Your task to perform on an android device: Open internet settings Image 0: 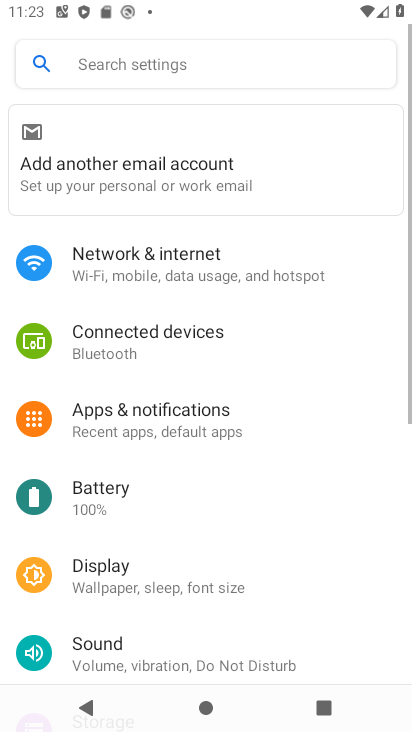
Step 0: press home button
Your task to perform on an android device: Open internet settings Image 1: 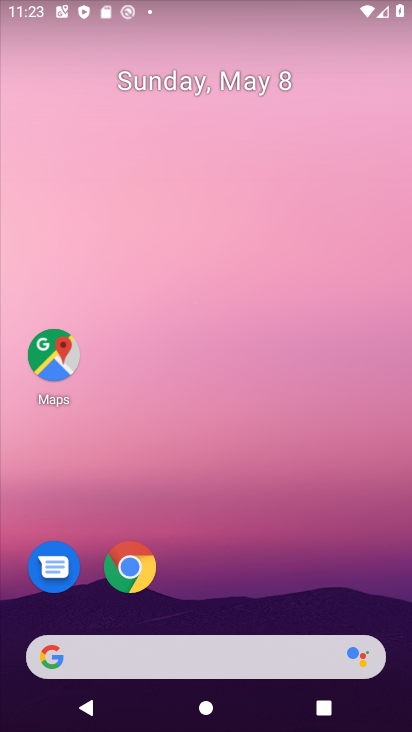
Step 1: drag from (217, 590) to (247, 55)
Your task to perform on an android device: Open internet settings Image 2: 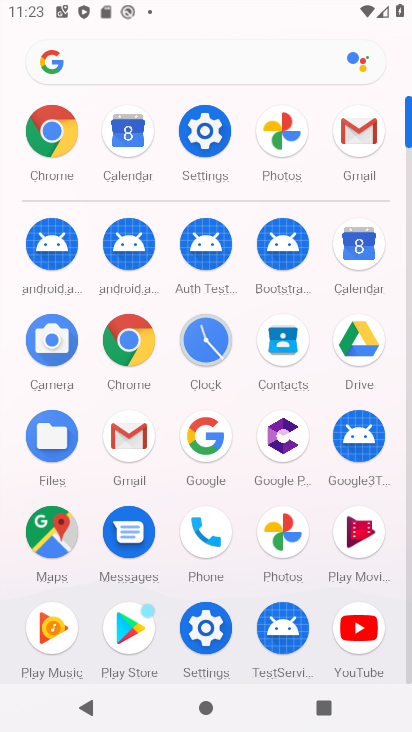
Step 2: click (201, 125)
Your task to perform on an android device: Open internet settings Image 3: 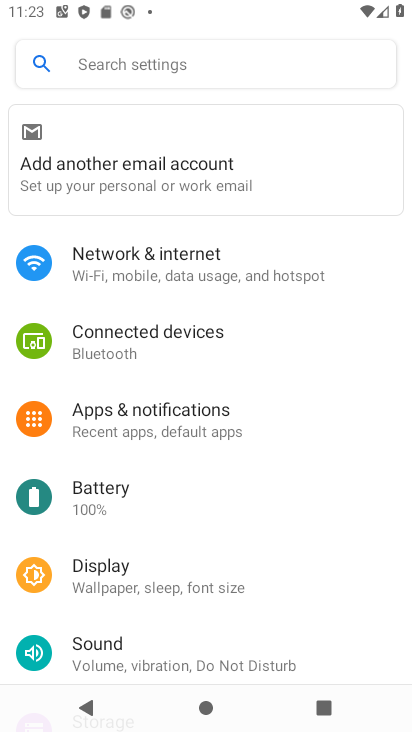
Step 3: click (237, 256)
Your task to perform on an android device: Open internet settings Image 4: 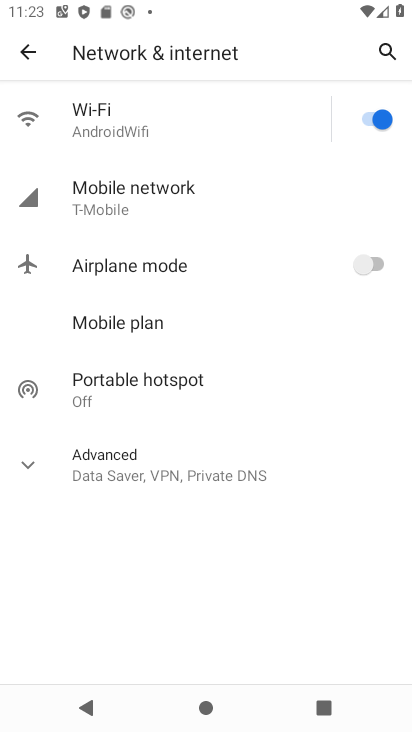
Step 4: click (32, 462)
Your task to perform on an android device: Open internet settings Image 5: 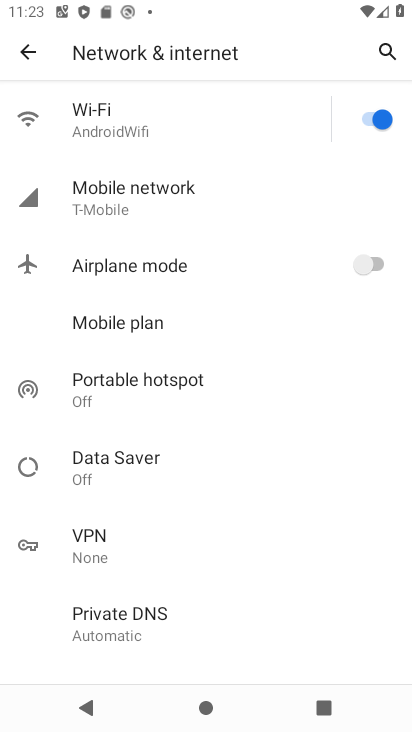
Step 5: task complete